Your task to perform on an android device: Clear all items from cart on amazon. Add "macbook air" to the cart on amazon, then select checkout. Image 0: 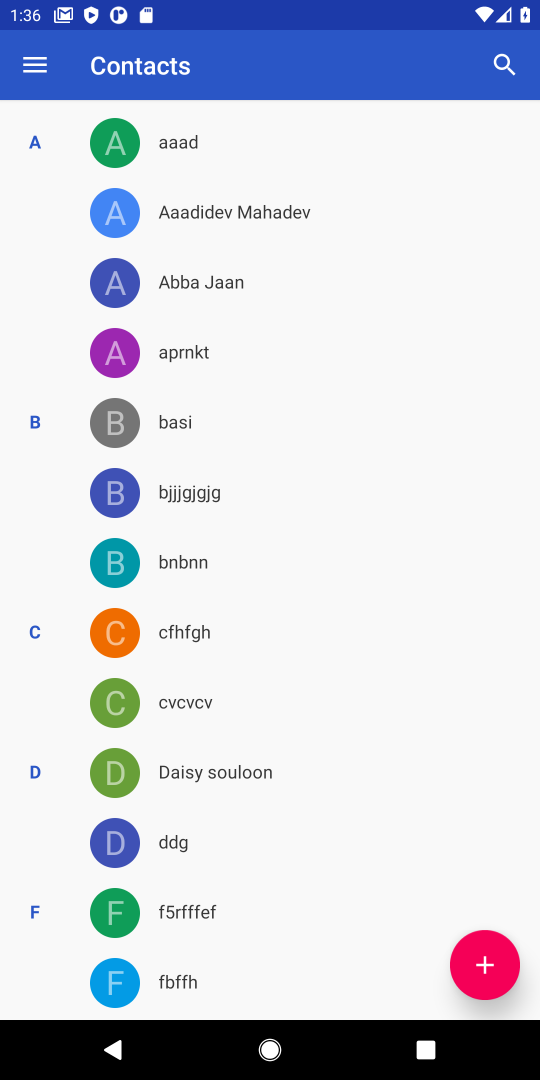
Step 0: press home button
Your task to perform on an android device: Clear all items from cart on amazon. Add "macbook air" to the cart on amazon, then select checkout. Image 1: 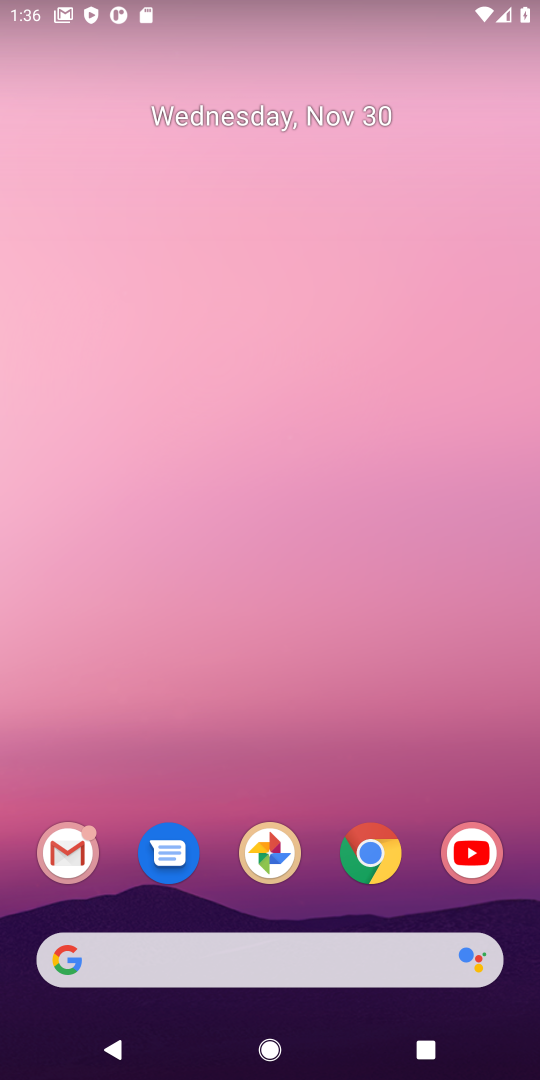
Step 1: click (374, 860)
Your task to perform on an android device: Clear all items from cart on amazon. Add "macbook air" to the cart on amazon, then select checkout. Image 2: 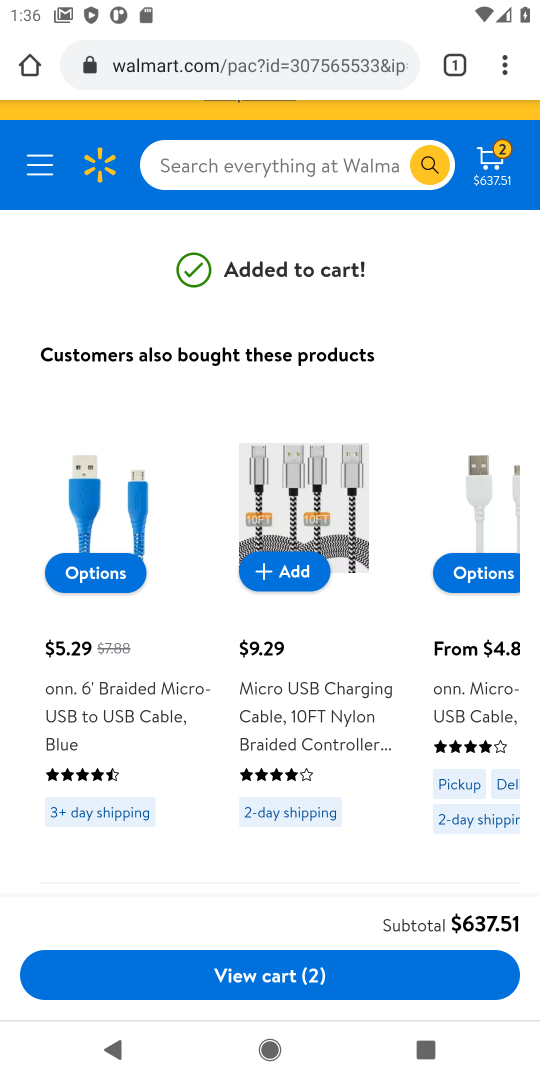
Step 2: click (249, 71)
Your task to perform on an android device: Clear all items from cart on amazon. Add "macbook air" to the cart on amazon, then select checkout. Image 3: 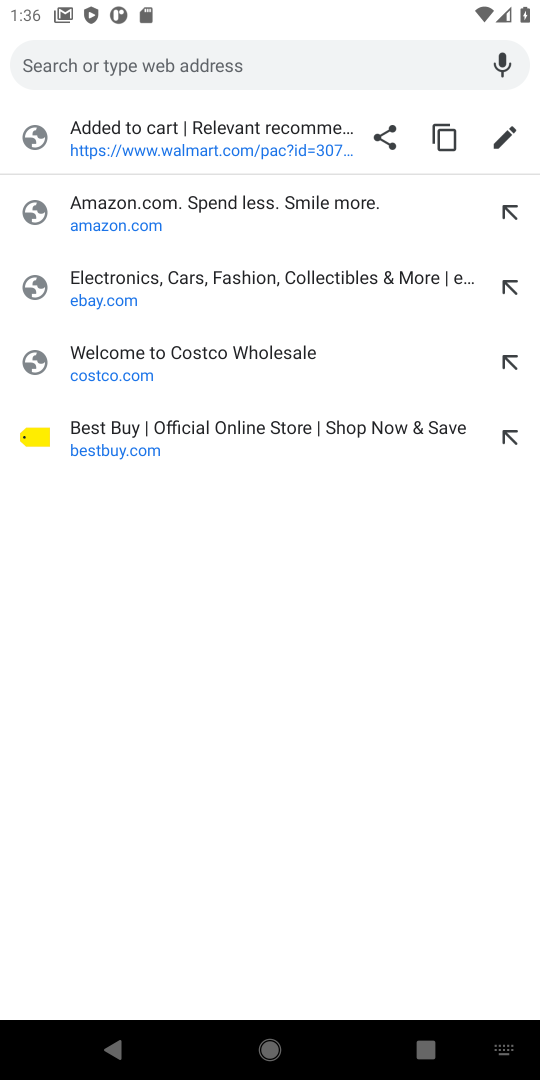
Step 3: click (98, 225)
Your task to perform on an android device: Clear all items from cart on amazon. Add "macbook air" to the cart on amazon, then select checkout. Image 4: 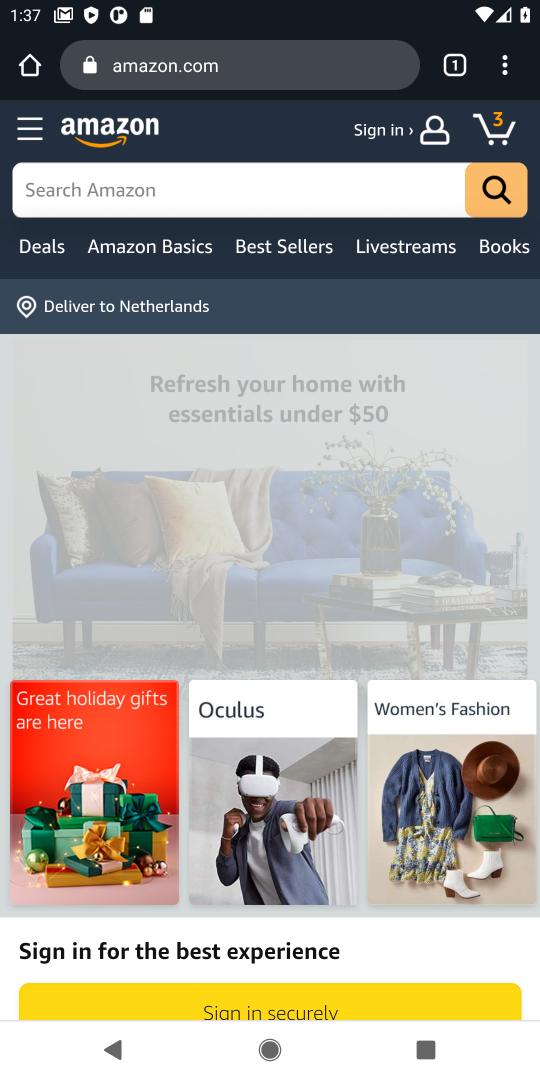
Step 4: click (498, 128)
Your task to perform on an android device: Clear all items from cart on amazon. Add "macbook air" to the cart on amazon, then select checkout. Image 5: 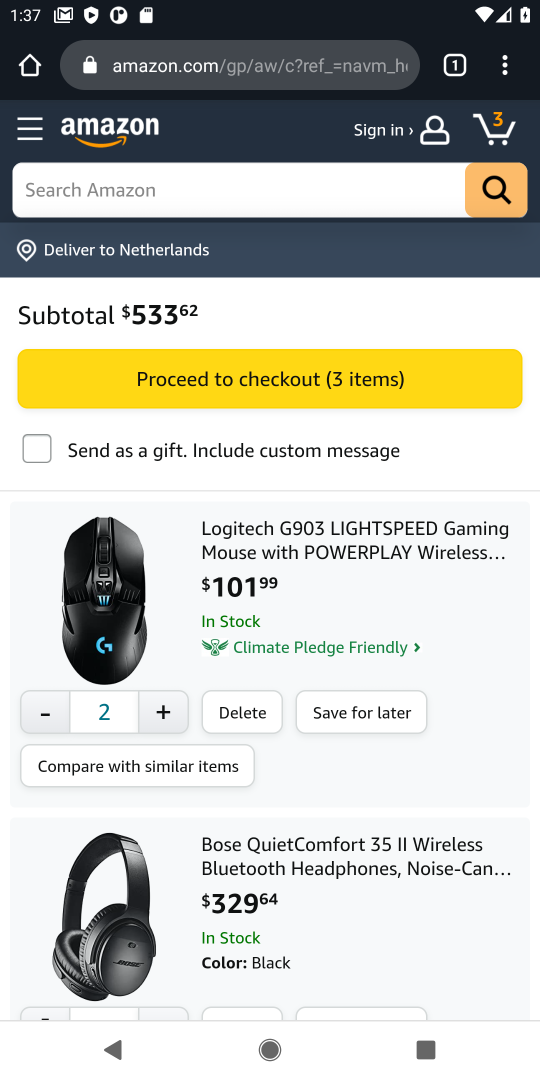
Step 5: click (250, 715)
Your task to perform on an android device: Clear all items from cart on amazon. Add "macbook air" to the cart on amazon, then select checkout. Image 6: 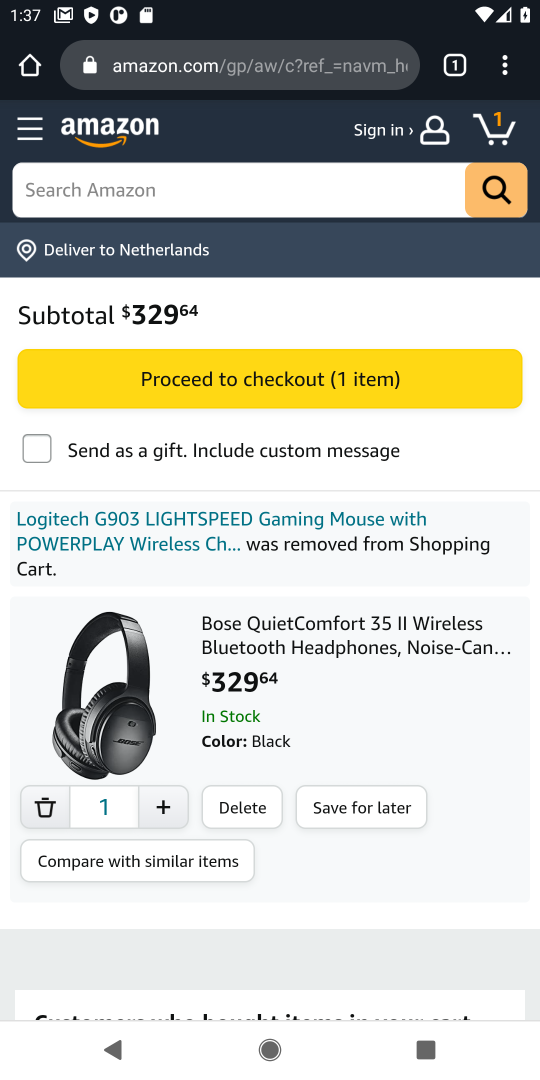
Step 6: click (237, 804)
Your task to perform on an android device: Clear all items from cart on amazon. Add "macbook air" to the cart on amazon, then select checkout. Image 7: 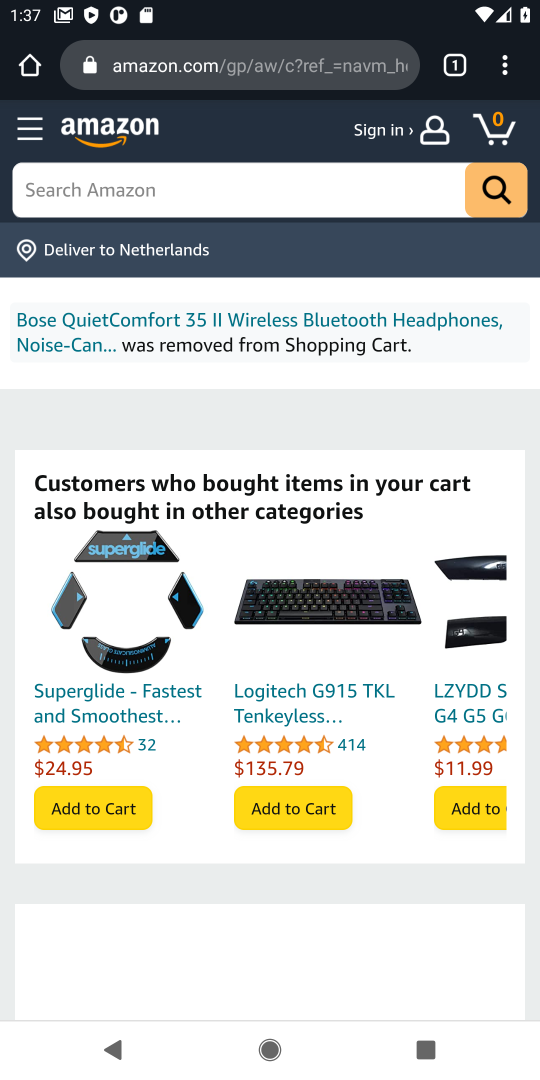
Step 7: click (111, 190)
Your task to perform on an android device: Clear all items from cart on amazon. Add "macbook air" to the cart on amazon, then select checkout. Image 8: 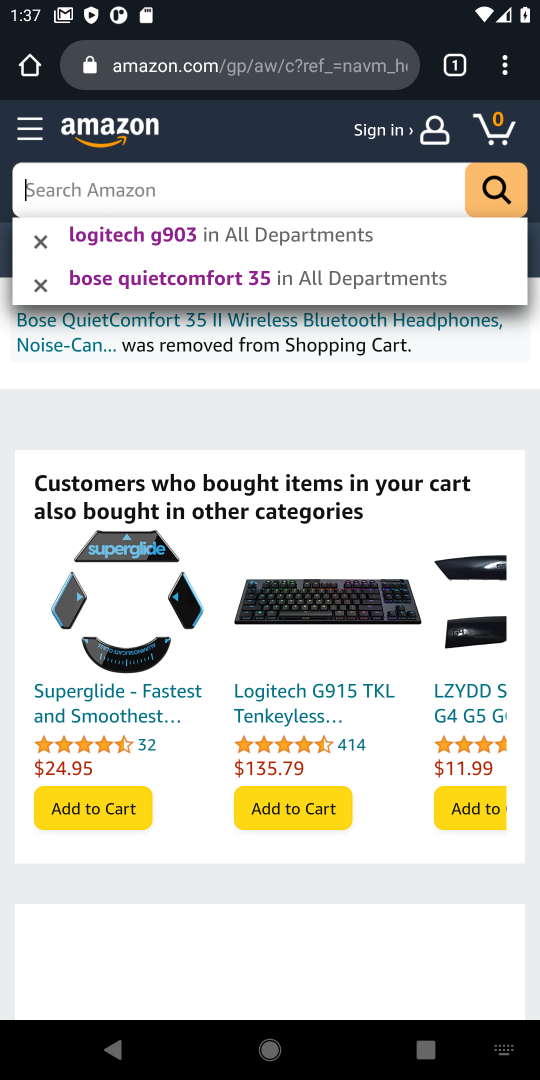
Step 8: type "macbook air"
Your task to perform on an android device: Clear all items from cart on amazon. Add "macbook air" to the cart on amazon, then select checkout. Image 9: 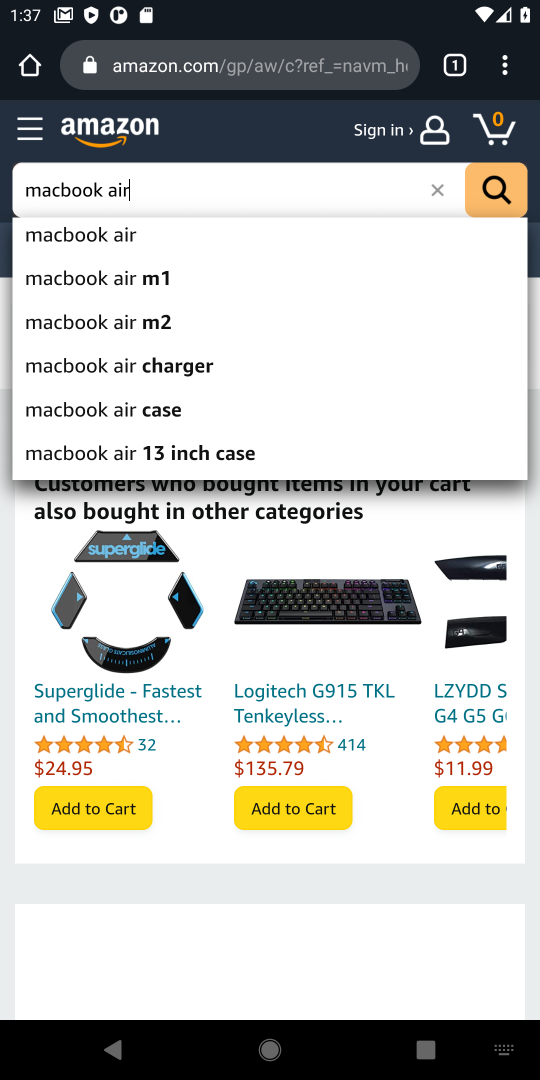
Step 9: click (98, 245)
Your task to perform on an android device: Clear all items from cart on amazon. Add "macbook air" to the cart on amazon, then select checkout. Image 10: 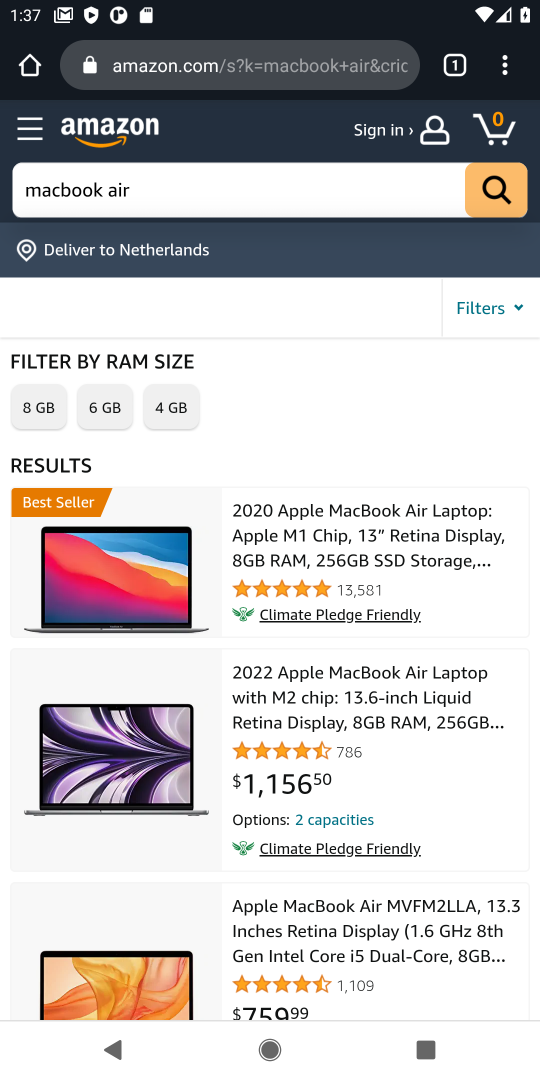
Step 10: drag from (354, 667) to (367, 451)
Your task to perform on an android device: Clear all items from cart on amazon. Add "macbook air" to the cart on amazon, then select checkout. Image 11: 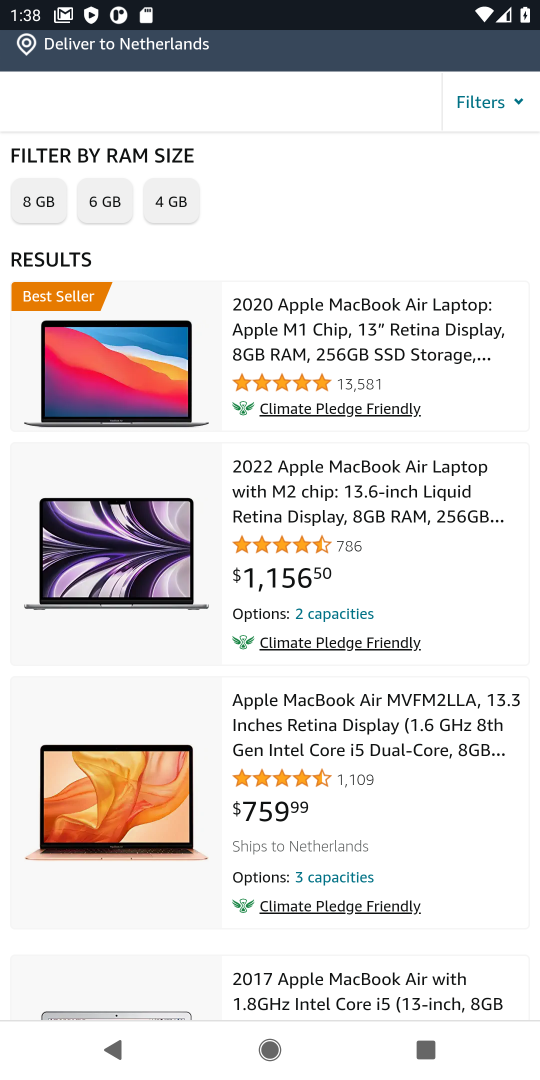
Step 11: click (325, 515)
Your task to perform on an android device: Clear all items from cart on amazon. Add "macbook air" to the cart on amazon, then select checkout. Image 12: 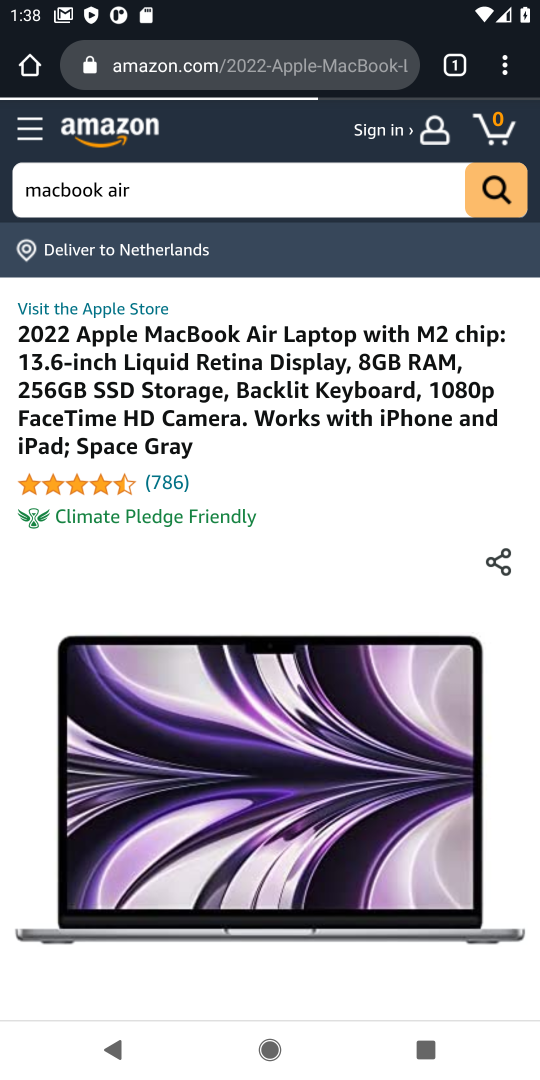
Step 12: drag from (292, 702) to (300, 297)
Your task to perform on an android device: Clear all items from cart on amazon. Add "macbook air" to the cart on amazon, then select checkout. Image 13: 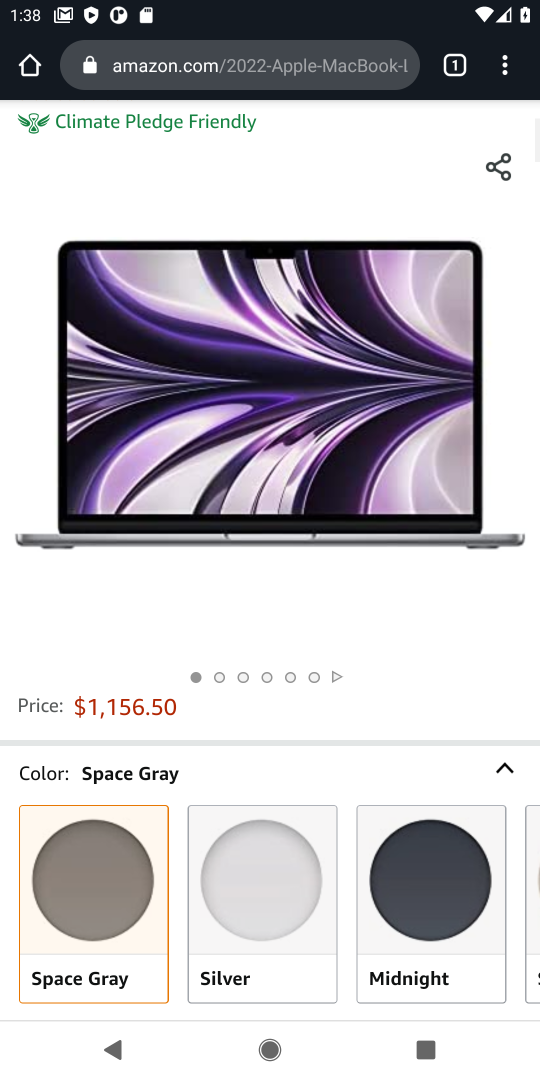
Step 13: drag from (316, 731) to (321, 331)
Your task to perform on an android device: Clear all items from cart on amazon. Add "macbook air" to the cart on amazon, then select checkout. Image 14: 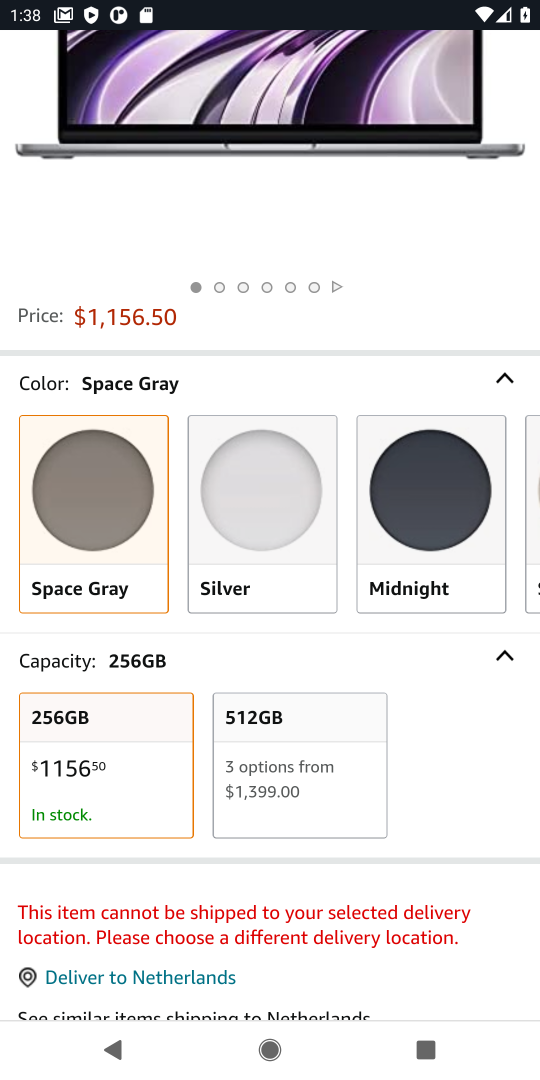
Step 14: drag from (406, 856) to (385, 547)
Your task to perform on an android device: Clear all items from cart on amazon. Add "macbook air" to the cart on amazon, then select checkout. Image 15: 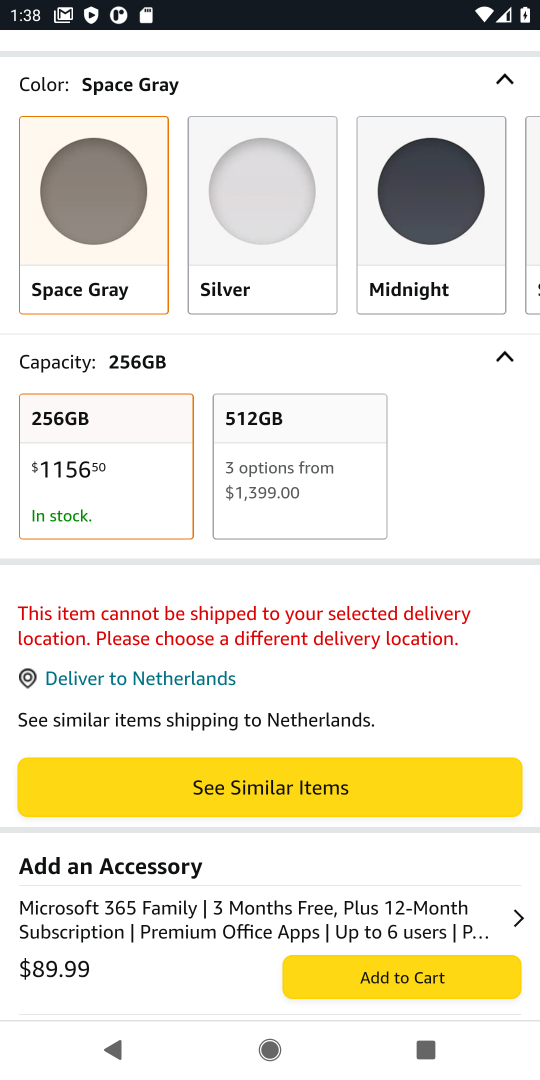
Step 15: press back button
Your task to perform on an android device: Clear all items from cart on amazon. Add "macbook air" to the cart on amazon, then select checkout. Image 16: 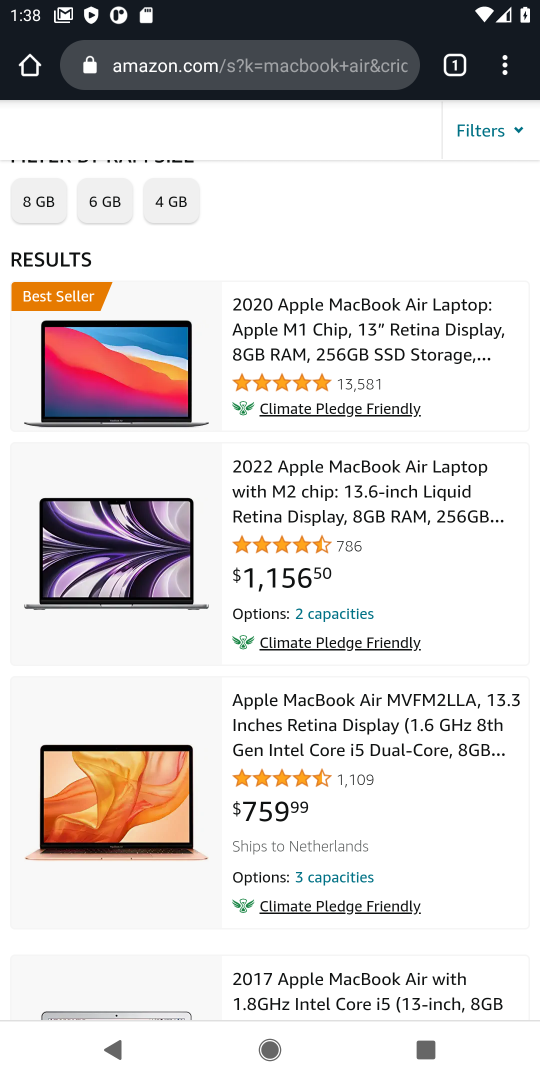
Step 16: drag from (382, 769) to (356, 426)
Your task to perform on an android device: Clear all items from cart on amazon. Add "macbook air" to the cart on amazon, then select checkout. Image 17: 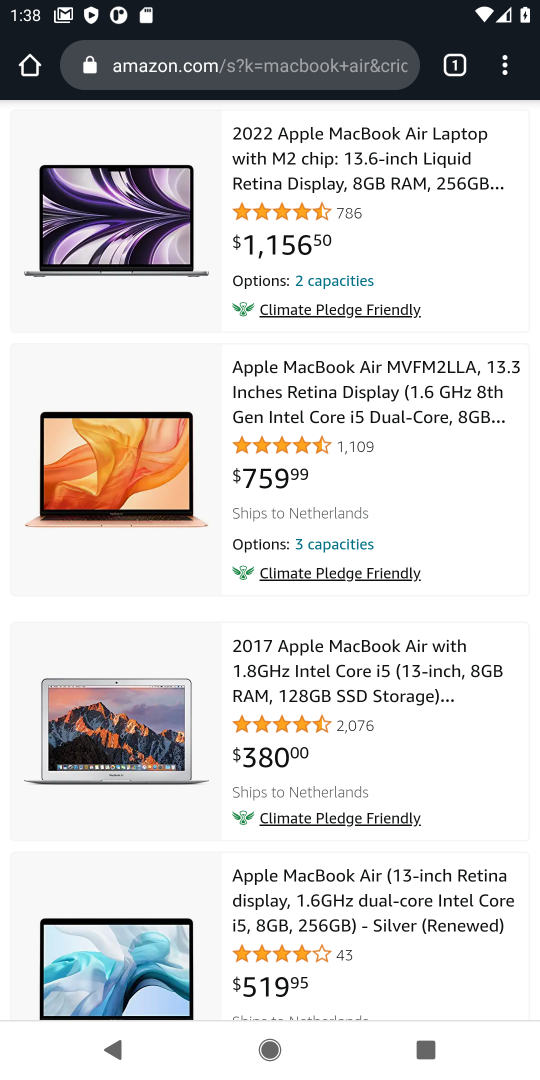
Step 17: click (289, 412)
Your task to perform on an android device: Clear all items from cart on amazon. Add "macbook air" to the cart on amazon, then select checkout. Image 18: 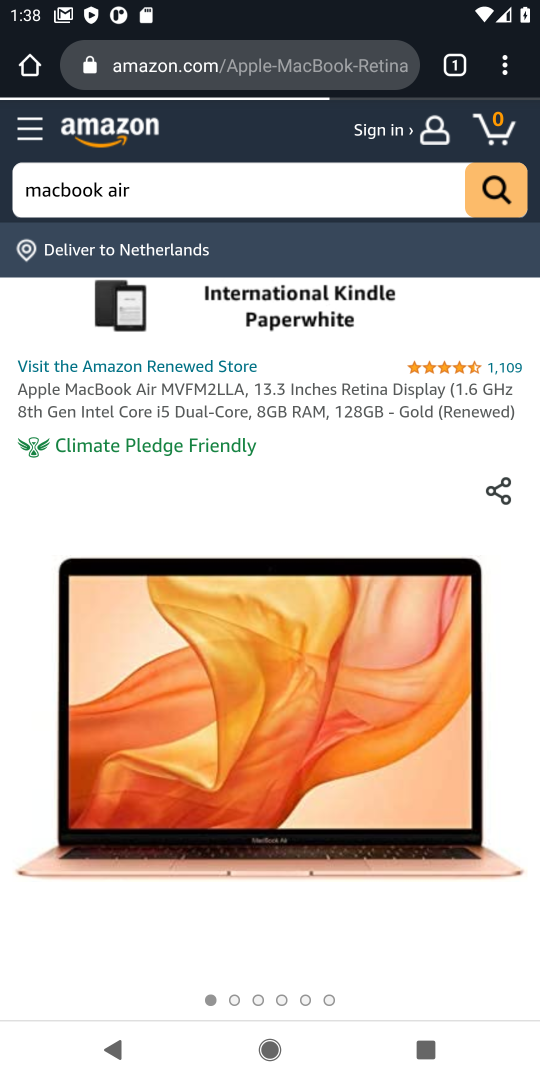
Step 18: drag from (379, 755) to (387, 358)
Your task to perform on an android device: Clear all items from cart on amazon. Add "macbook air" to the cart on amazon, then select checkout. Image 19: 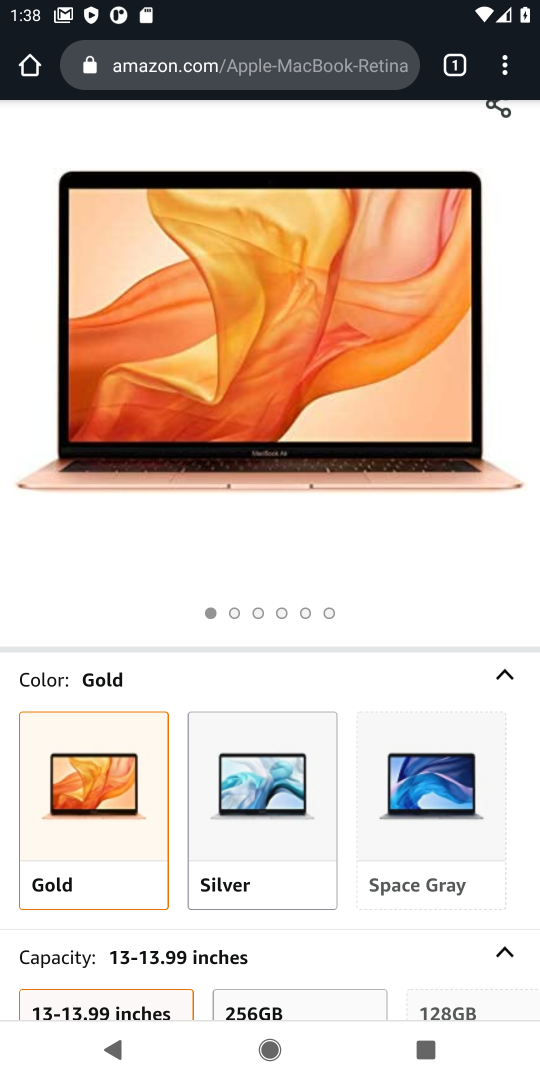
Step 19: drag from (283, 696) to (260, 276)
Your task to perform on an android device: Clear all items from cart on amazon. Add "macbook air" to the cart on amazon, then select checkout. Image 20: 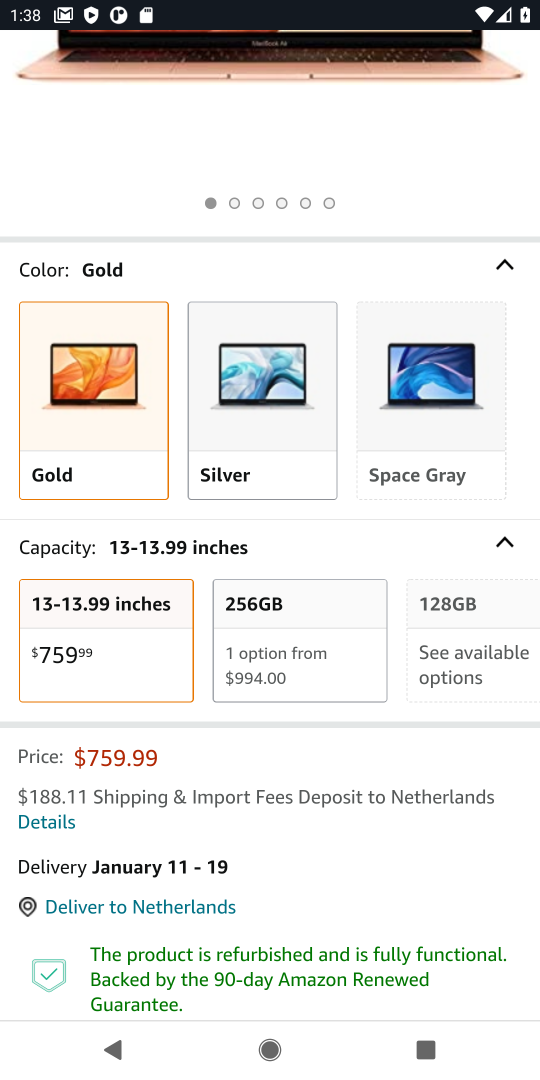
Step 20: drag from (329, 897) to (323, 415)
Your task to perform on an android device: Clear all items from cart on amazon. Add "macbook air" to the cart on amazon, then select checkout. Image 21: 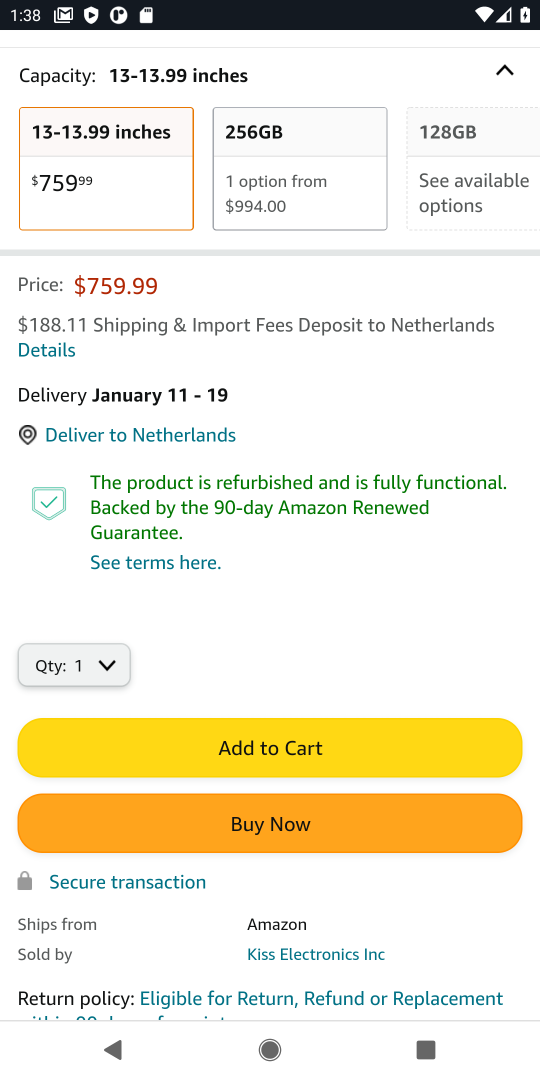
Step 21: click (239, 747)
Your task to perform on an android device: Clear all items from cart on amazon. Add "macbook air" to the cart on amazon, then select checkout. Image 22: 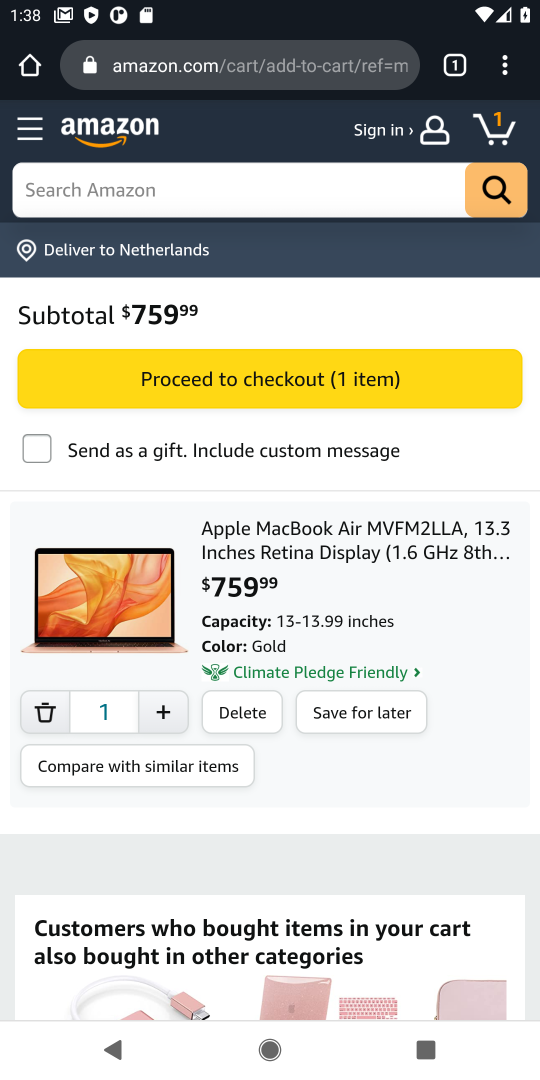
Step 22: click (297, 379)
Your task to perform on an android device: Clear all items from cart on amazon. Add "macbook air" to the cart on amazon, then select checkout. Image 23: 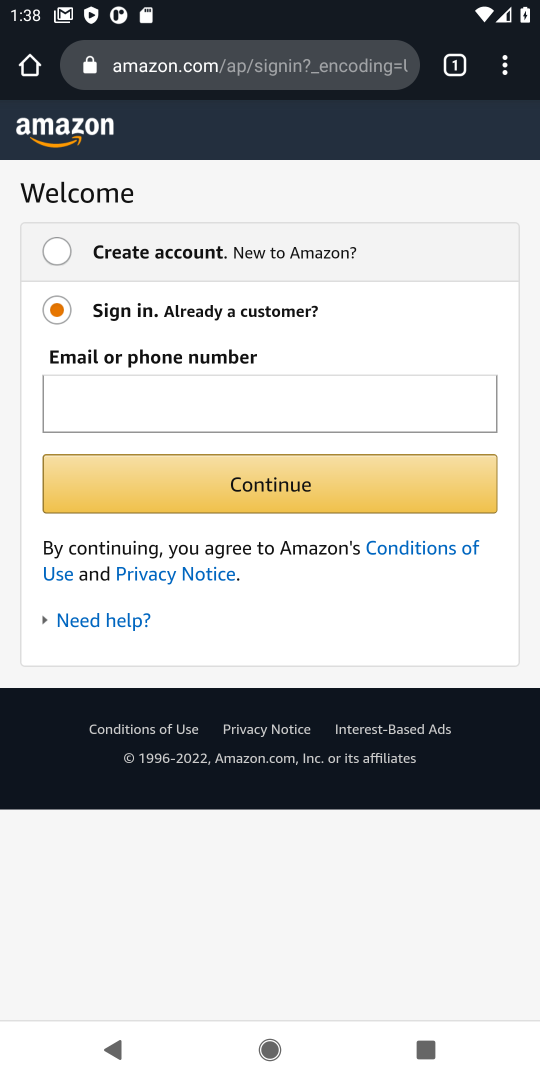
Step 23: task complete